Your task to perform on an android device: manage bookmarks in the chrome app Image 0: 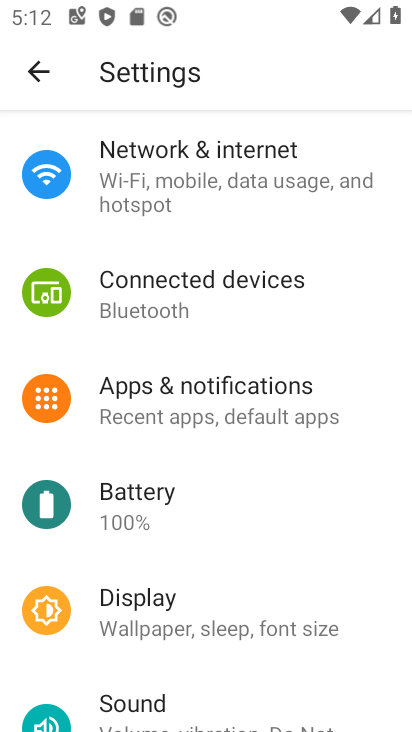
Step 0: press back button
Your task to perform on an android device: manage bookmarks in the chrome app Image 1: 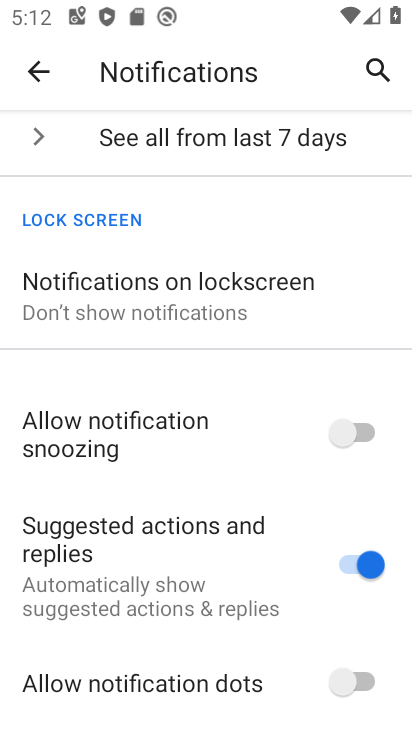
Step 1: press back button
Your task to perform on an android device: manage bookmarks in the chrome app Image 2: 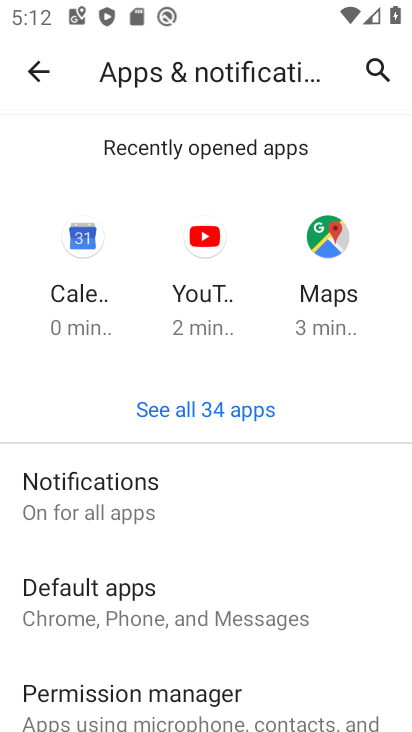
Step 2: press back button
Your task to perform on an android device: manage bookmarks in the chrome app Image 3: 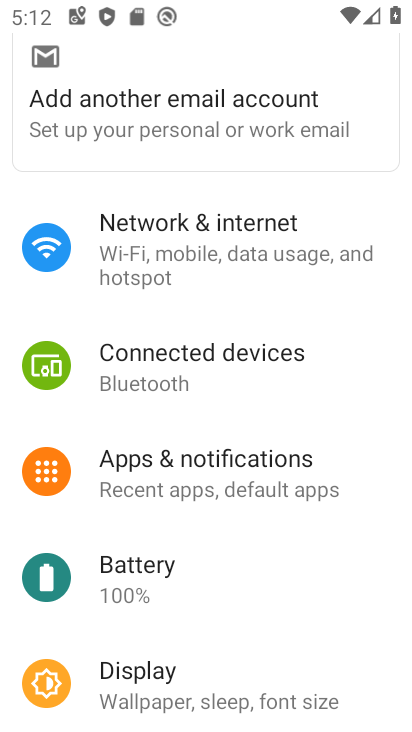
Step 3: press back button
Your task to perform on an android device: manage bookmarks in the chrome app Image 4: 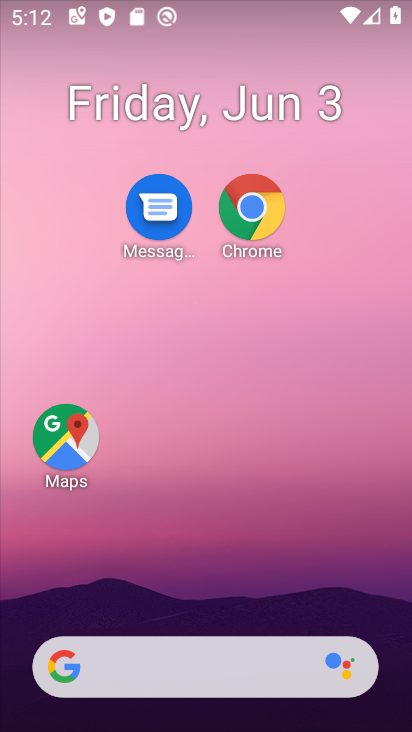
Step 4: click (251, 207)
Your task to perform on an android device: manage bookmarks in the chrome app Image 5: 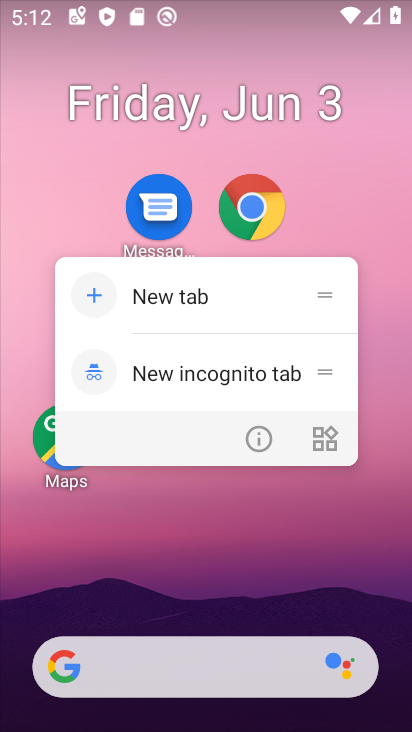
Step 5: click (251, 207)
Your task to perform on an android device: manage bookmarks in the chrome app Image 6: 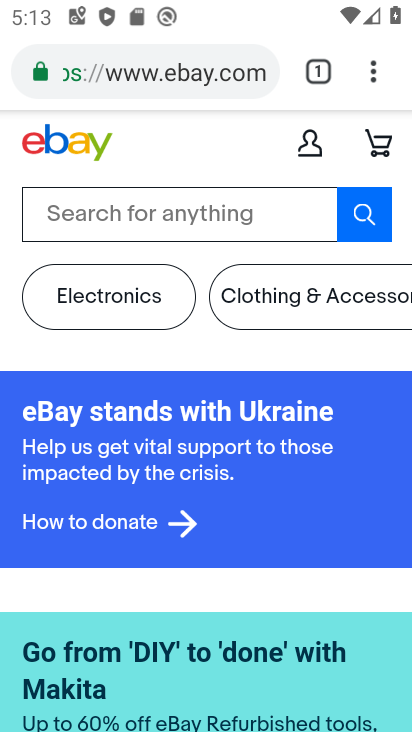
Step 6: click (371, 75)
Your task to perform on an android device: manage bookmarks in the chrome app Image 7: 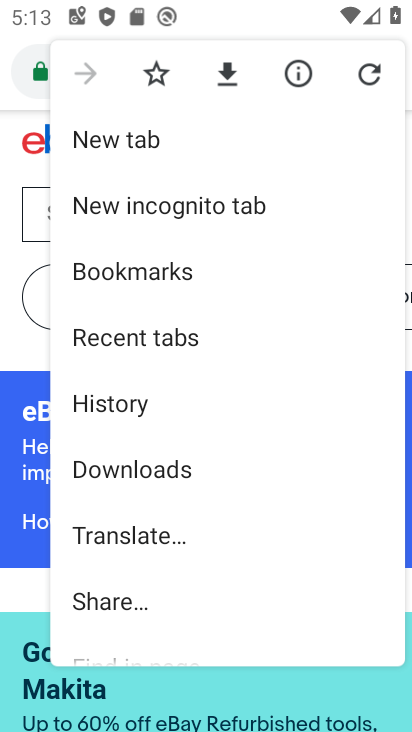
Step 7: click (126, 280)
Your task to perform on an android device: manage bookmarks in the chrome app Image 8: 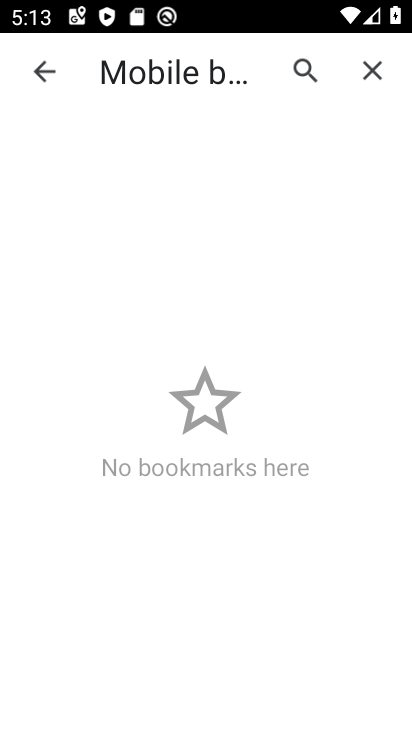
Step 8: task complete